Your task to perform on an android device: What's the latest video from Game Informer? Image 0: 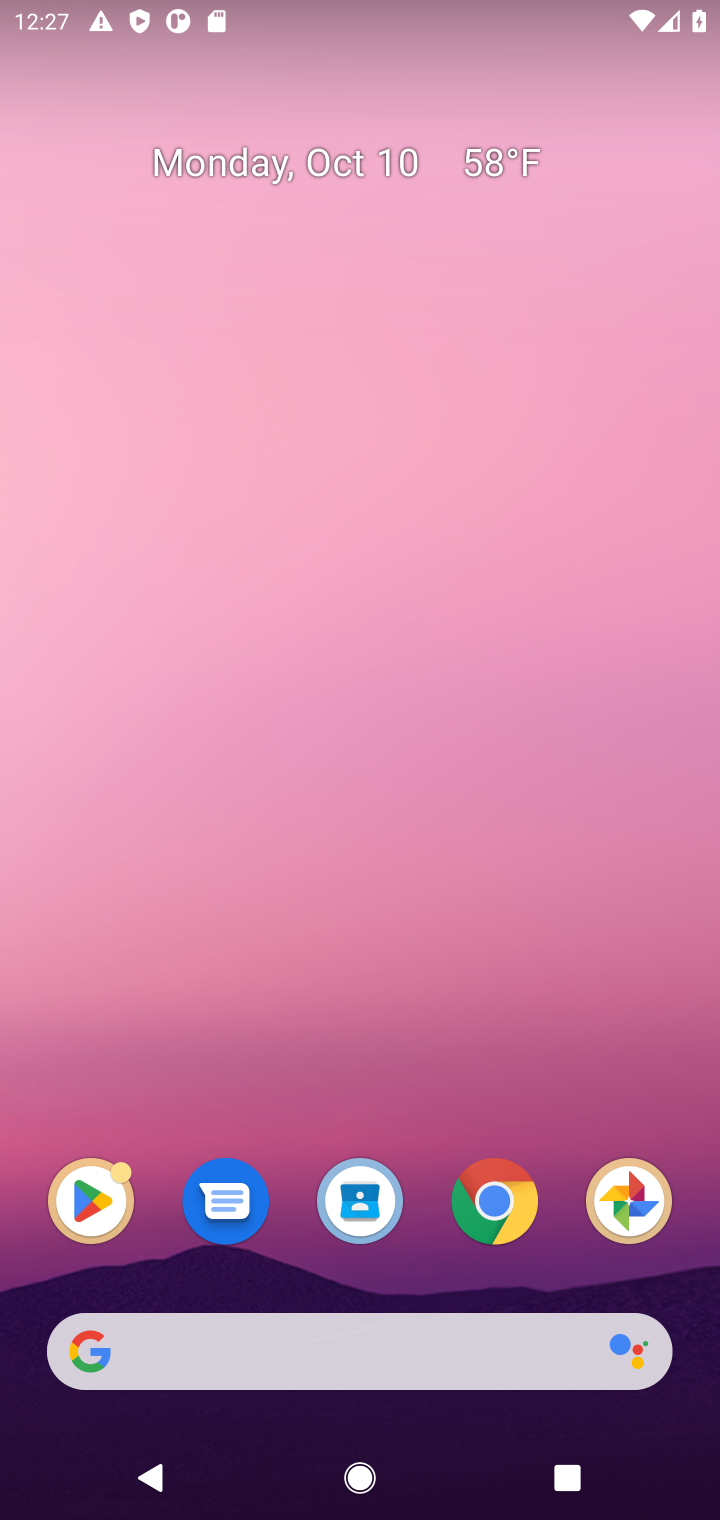
Step 0: drag from (413, 1276) to (293, 212)
Your task to perform on an android device: What's the latest video from Game Informer? Image 1: 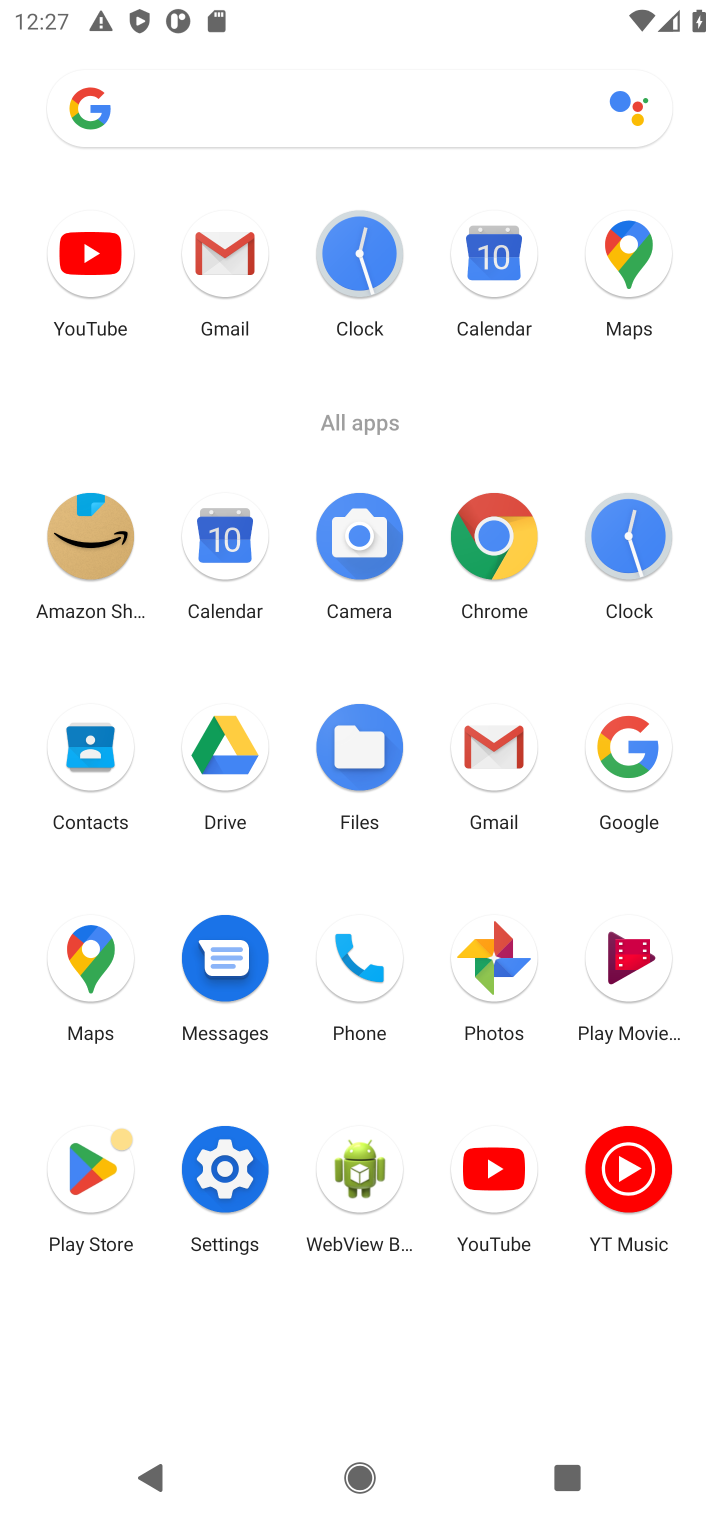
Step 1: click (524, 1202)
Your task to perform on an android device: What's the latest video from Game Informer? Image 2: 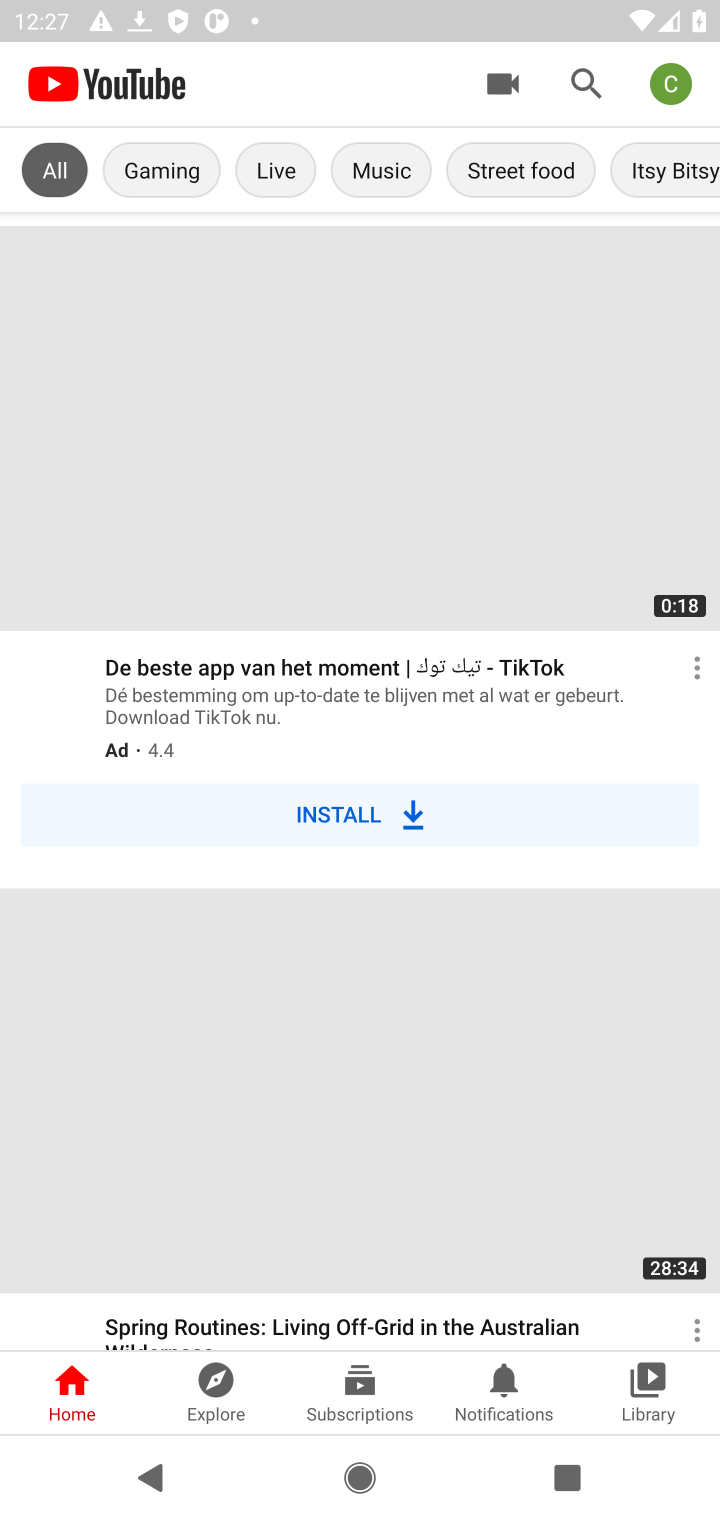
Step 2: click (582, 84)
Your task to perform on an android device: What's the latest video from Game Informer? Image 3: 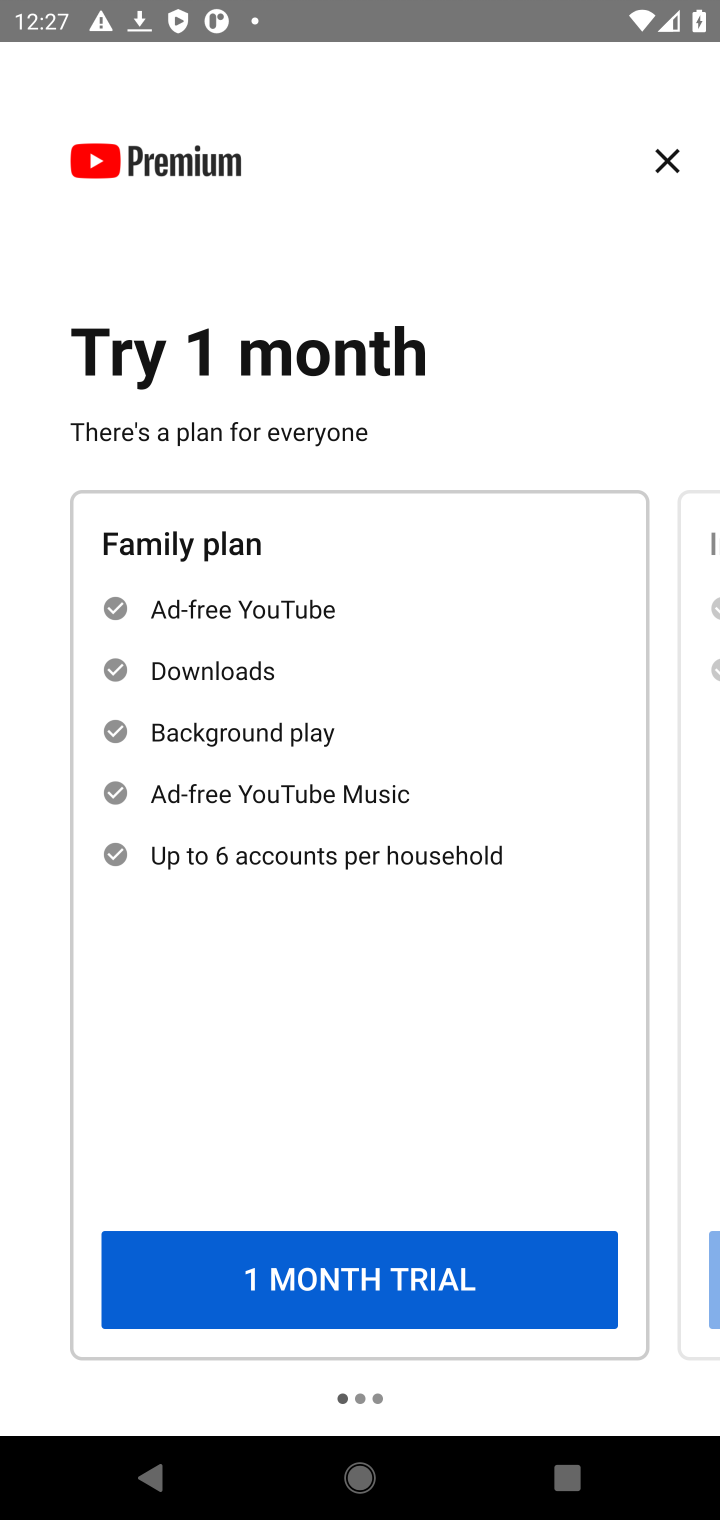
Step 3: click (662, 153)
Your task to perform on an android device: What's the latest video from Game Informer? Image 4: 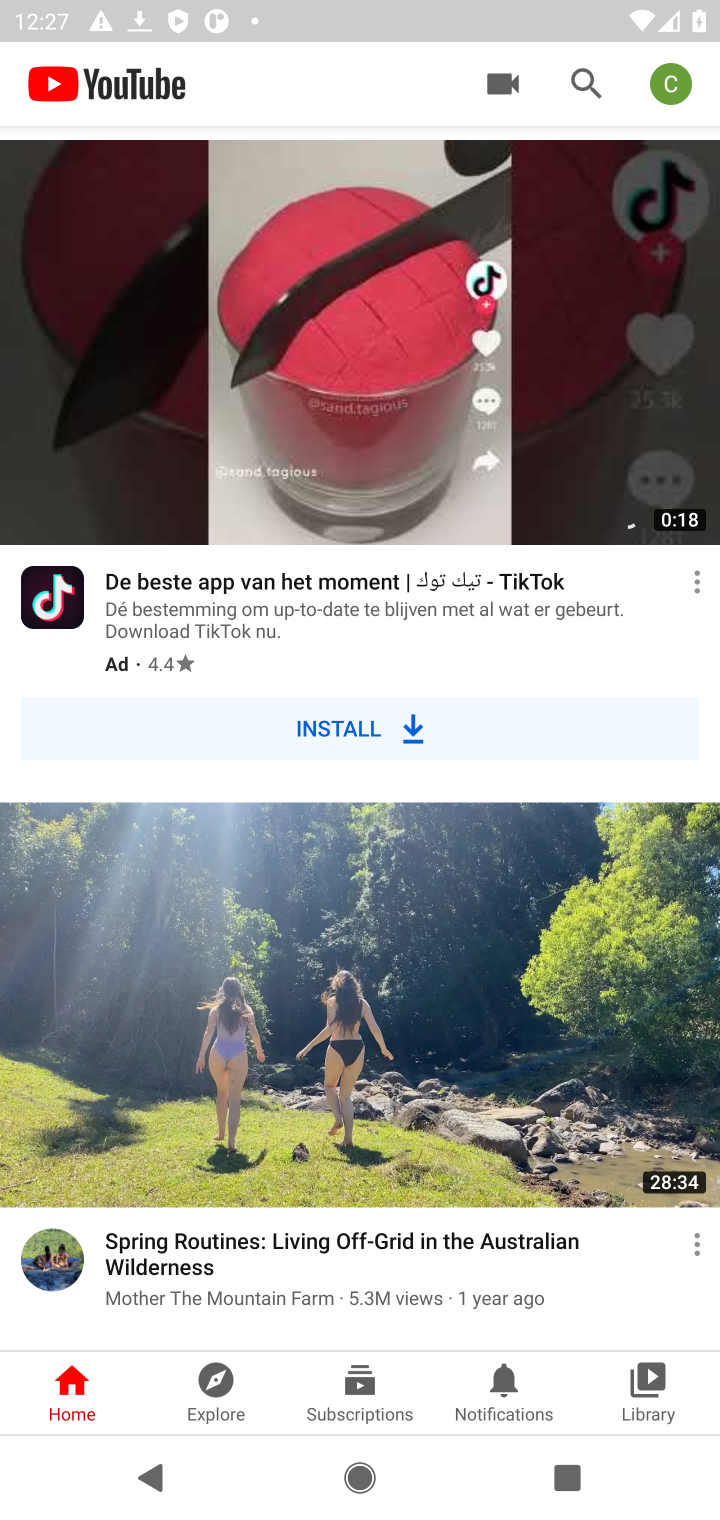
Step 4: click (574, 80)
Your task to perform on an android device: What's the latest video from Game Informer? Image 5: 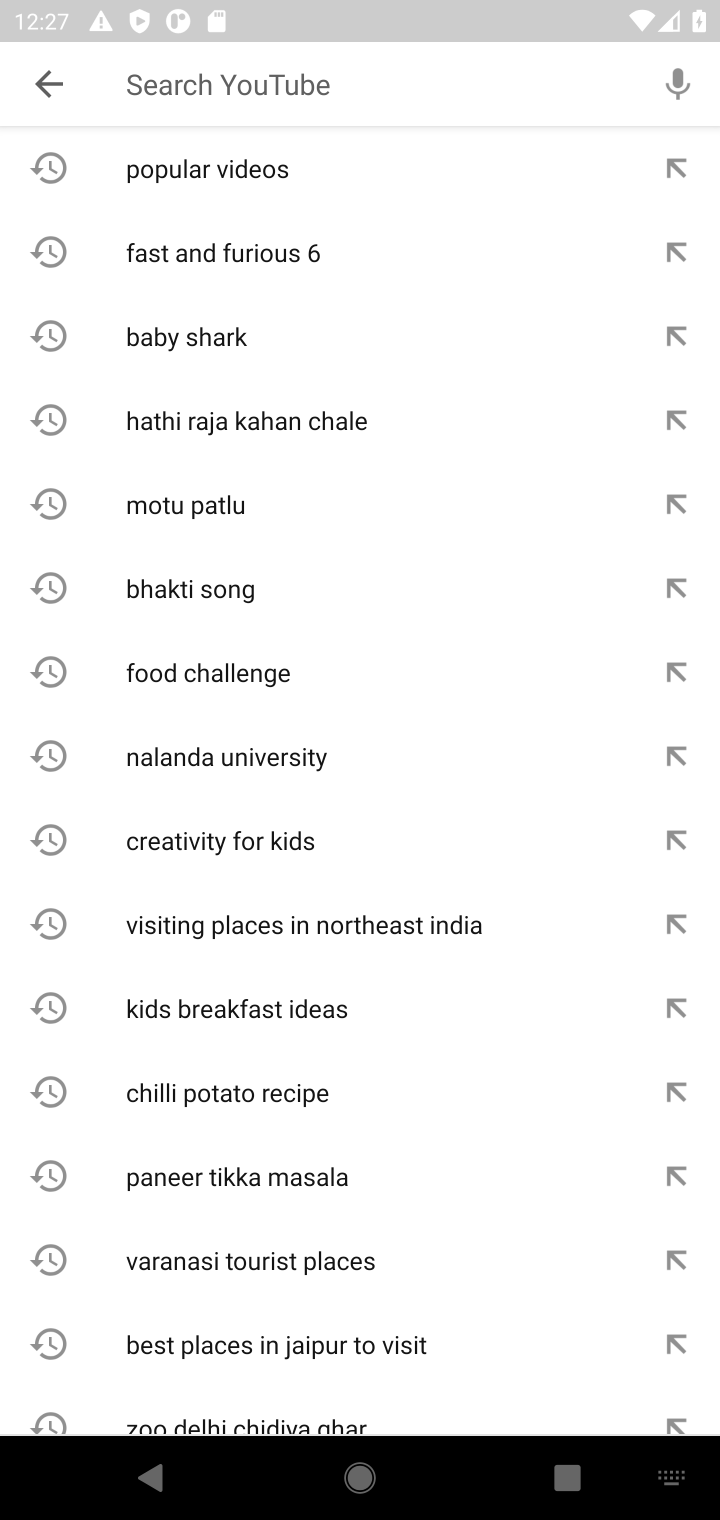
Step 5: type "the latest video from Game Informer?"
Your task to perform on an android device: What's the latest video from Game Informer? Image 6: 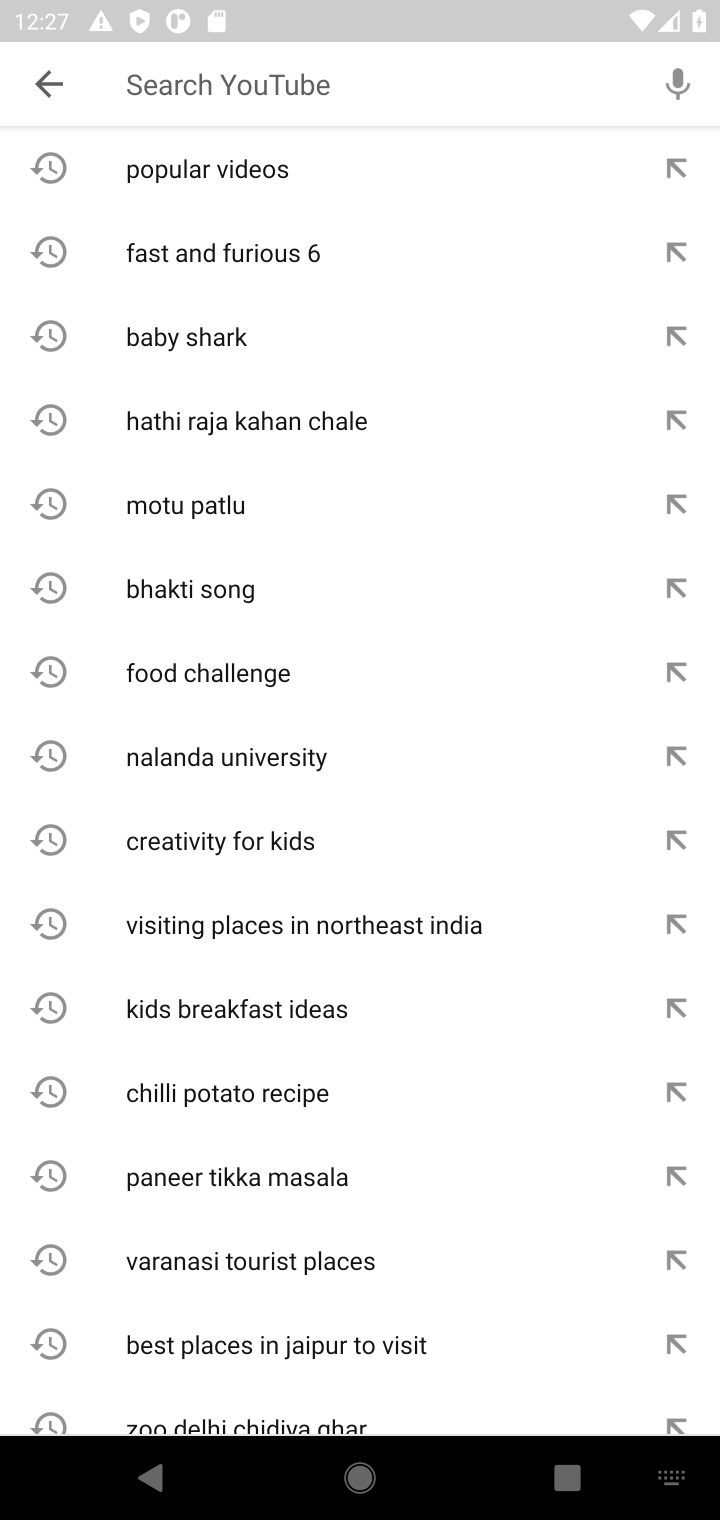
Step 6: click (480, 78)
Your task to perform on an android device: What's the latest video from Game Informer? Image 7: 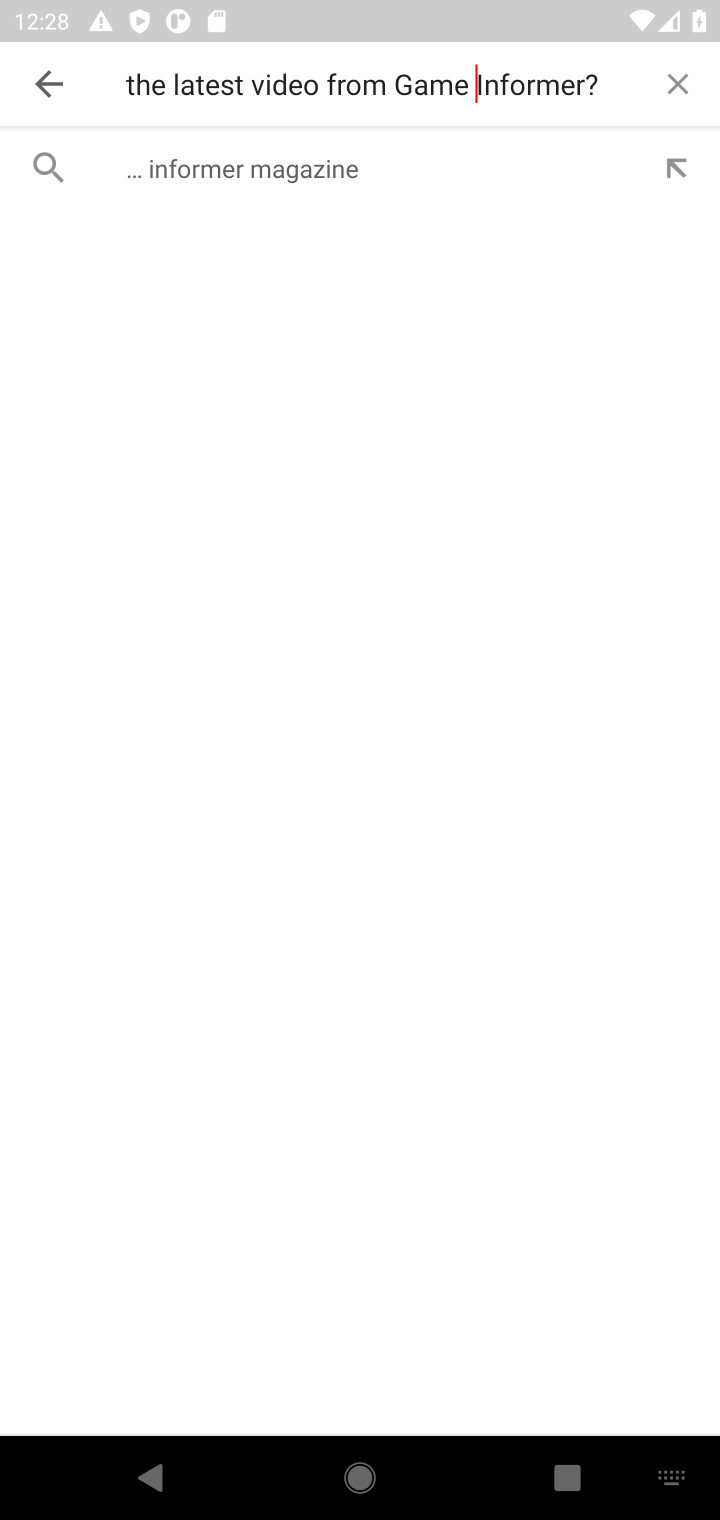
Step 7: click (291, 184)
Your task to perform on an android device: What's the latest video from Game Informer? Image 8: 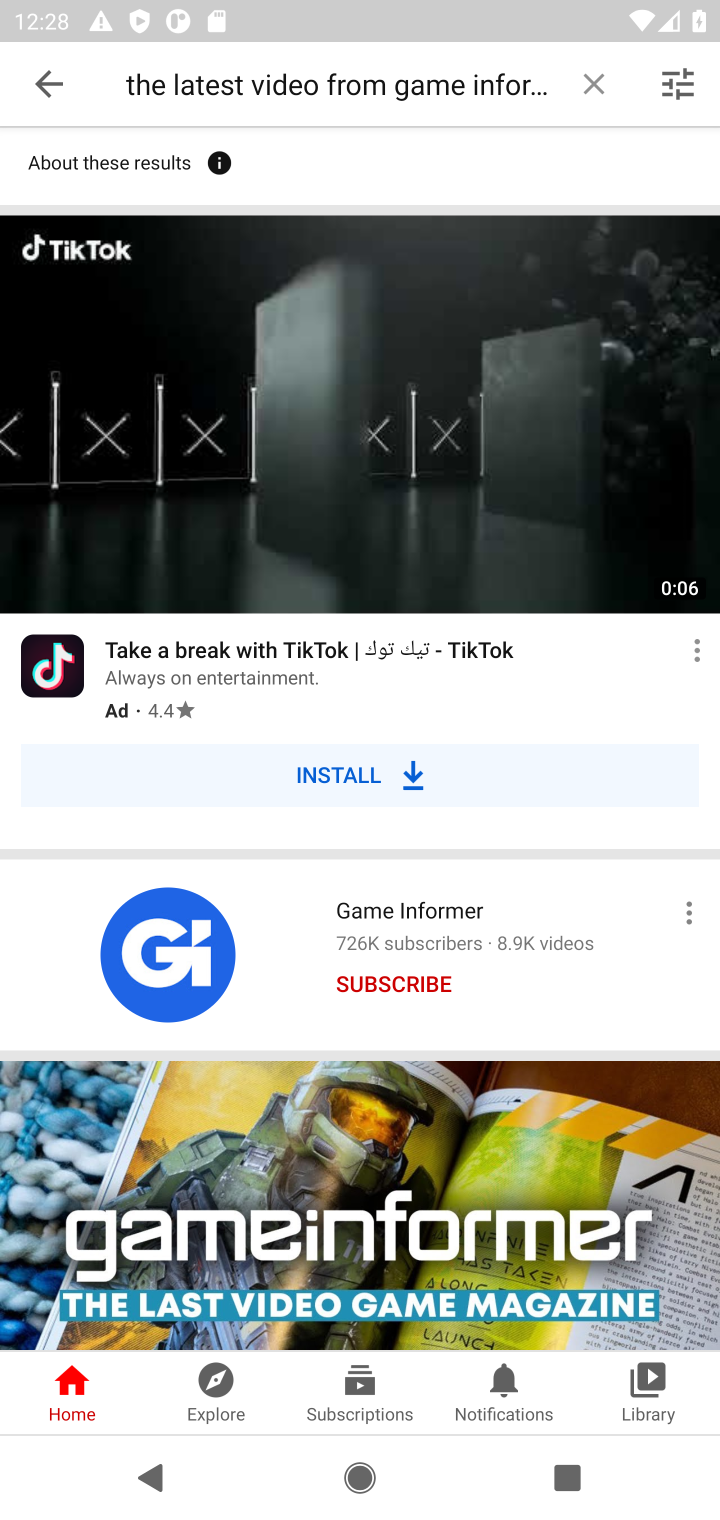
Step 8: click (425, 1151)
Your task to perform on an android device: What's the latest video from Game Informer? Image 9: 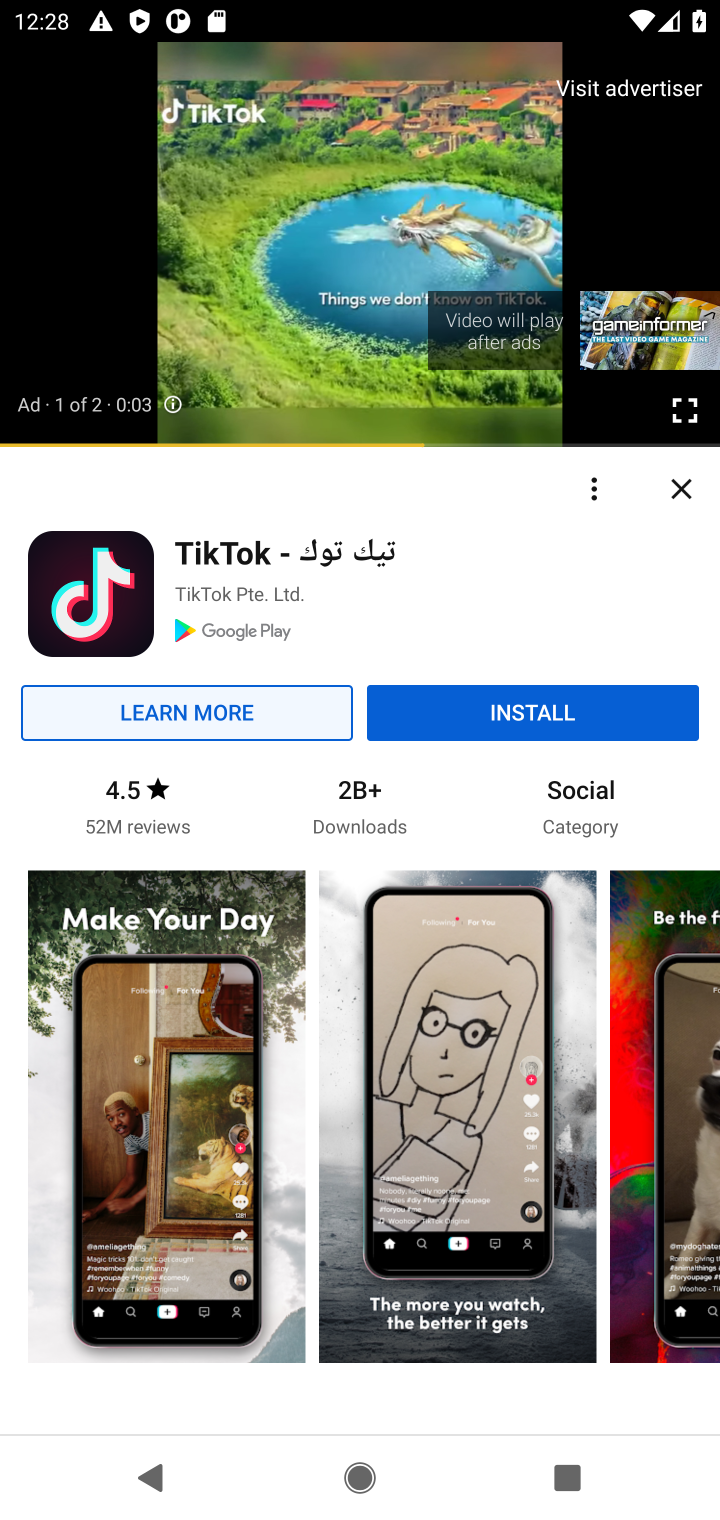
Step 9: click (691, 465)
Your task to perform on an android device: What's the latest video from Game Informer? Image 10: 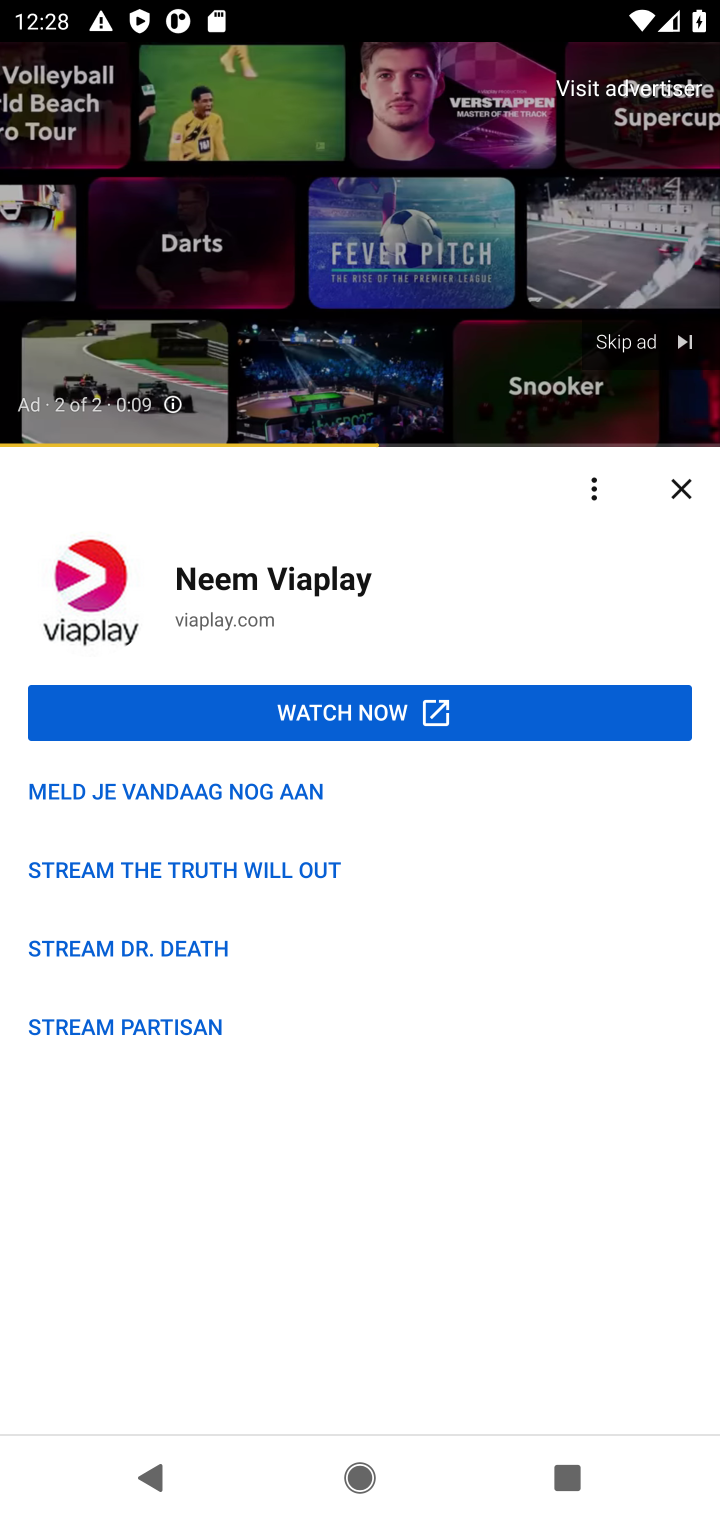
Step 10: click (608, 356)
Your task to perform on an android device: What's the latest video from Game Informer? Image 11: 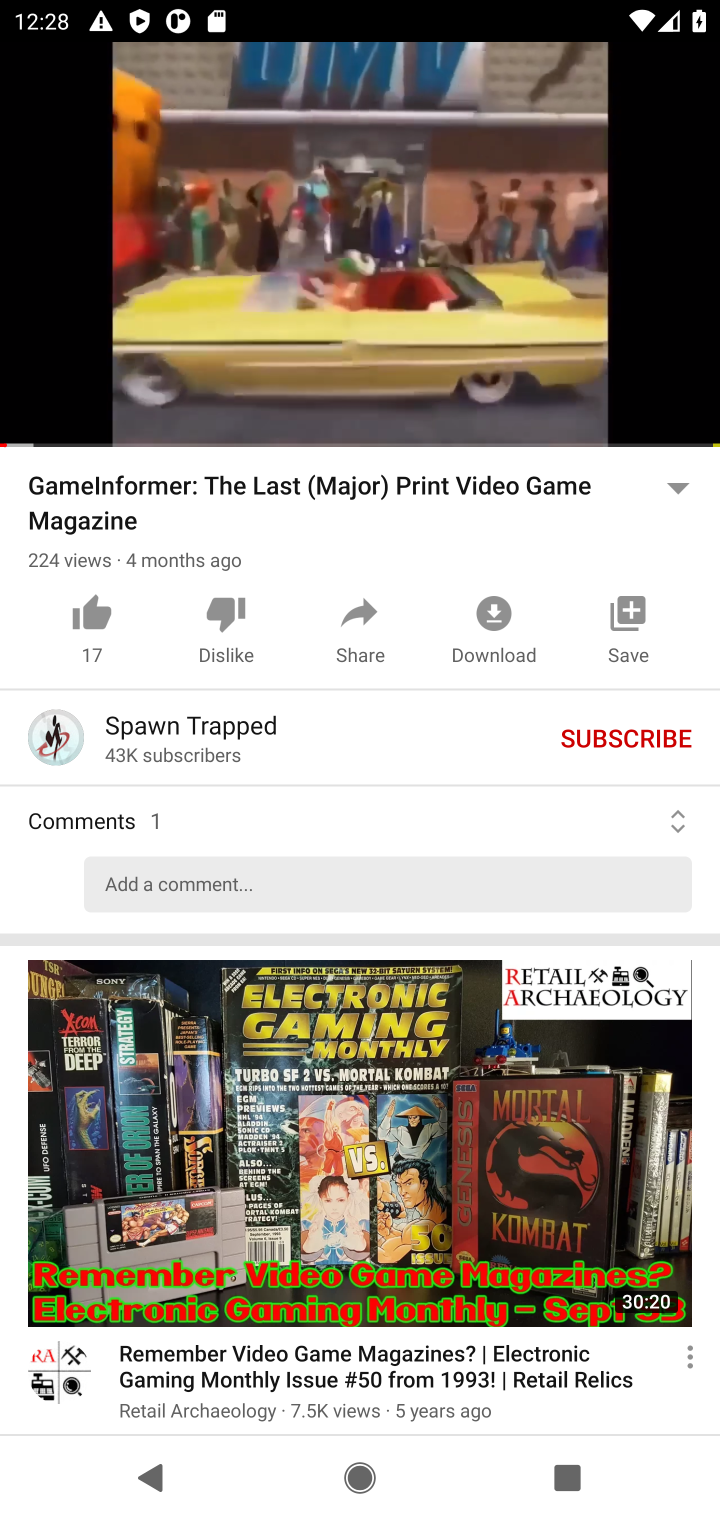
Step 11: task complete